Your task to perform on an android device: search for starred emails in the gmail app Image 0: 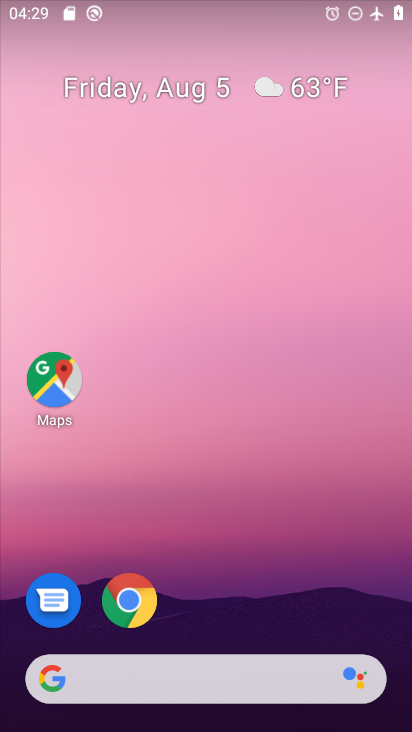
Step 0: drag from (188, 686) to (165, 204)
Your task to perform on an android device: search for starred emails in the gmail app Image 1: 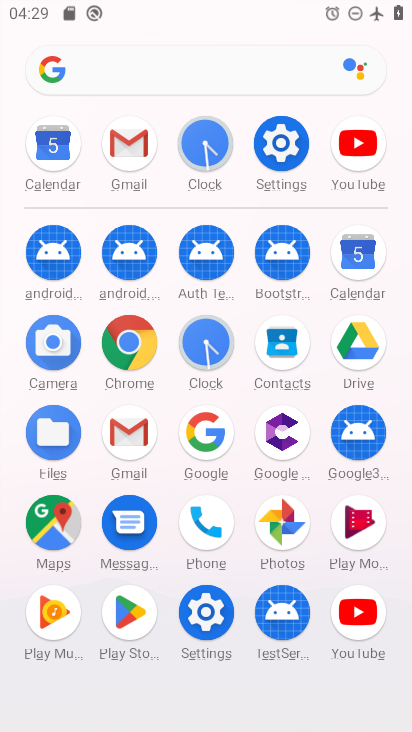
Step 1: click (125, 429)
Your task to perform on an android device: search for starred emails in the gmail app Image 2: 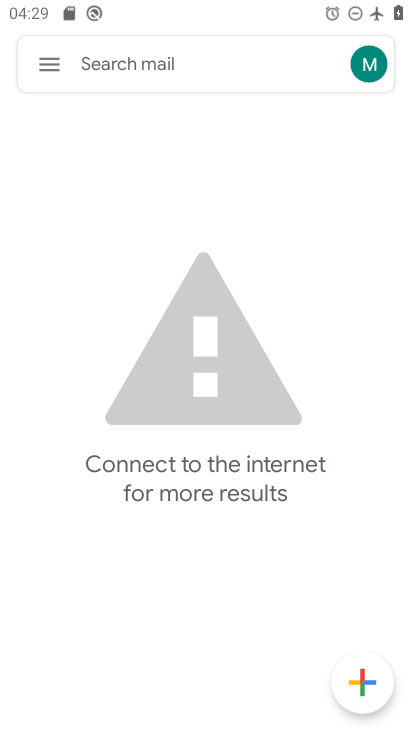
Step 2: task complete